Your task to perform on an android device: Go to Yahoo.com Image 0: 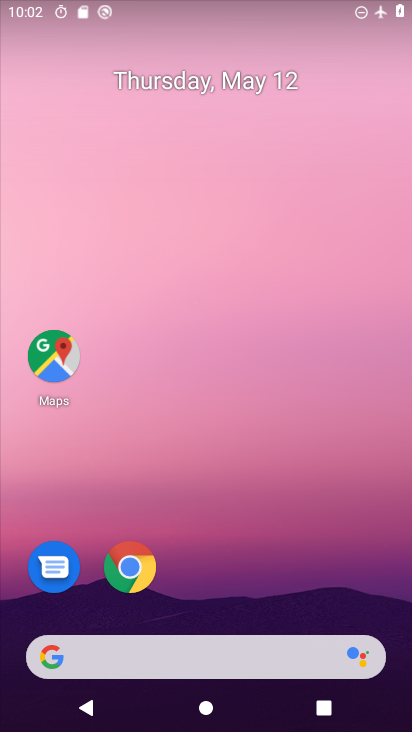
Step 0: drag from (237, 575) to (242, 204)
Your task to perform on an android device: Go to Yahoo.com Image 1: 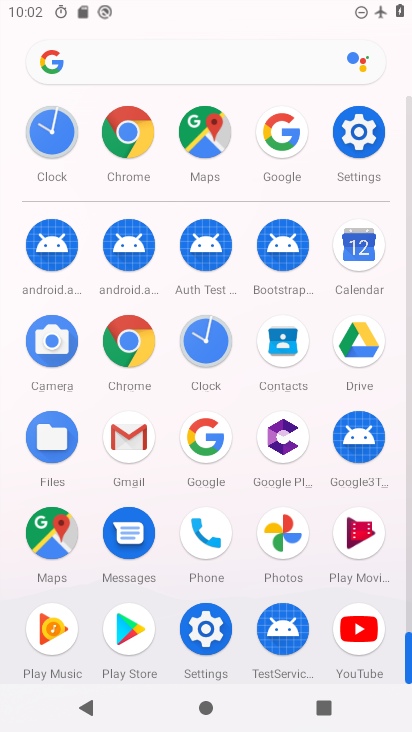
Step 1: click (138, 141)
Your task to perform on an android device: Go to Yahoo.com Image 2: 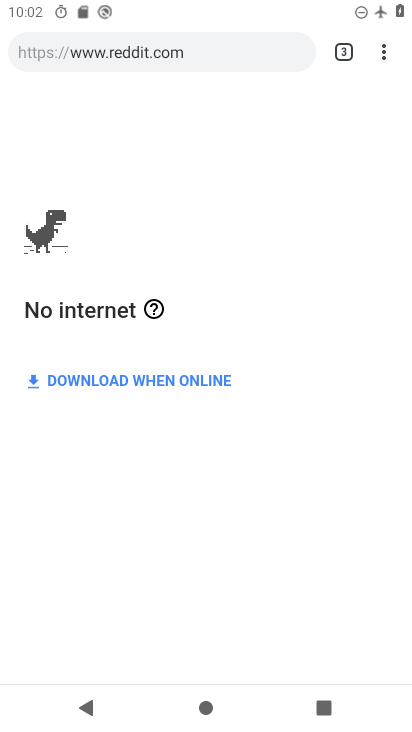
Step 2: click (267, 52)
Your task to perform on an android device: Go to Yahoo.com Image 3: 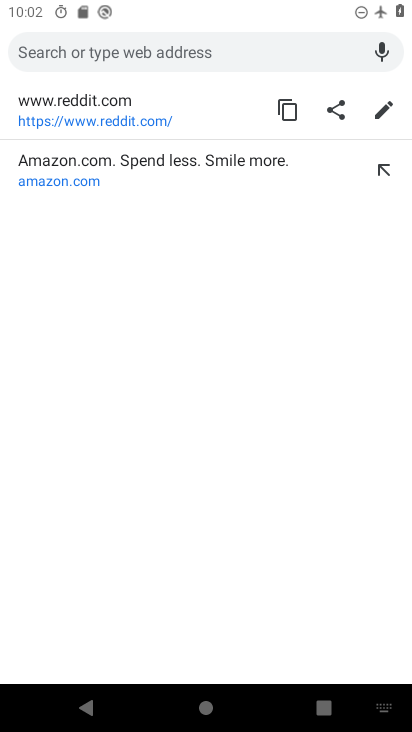
Step 3: type "yahoo.com"
Your task to perform on an android device: Go to Yahoo.com Image 4: 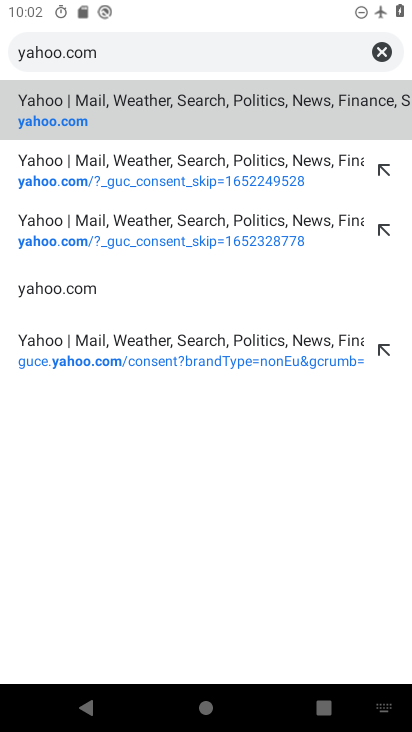
Step 4: click (173, 126)
Your task to perform on an android device: Go to Yahoo.com Image 5: 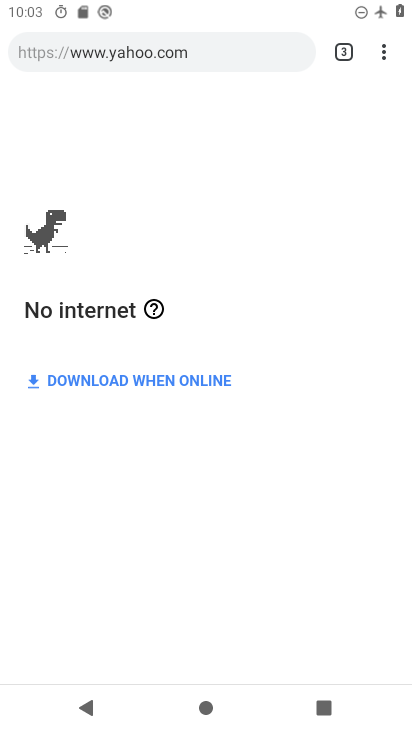
Step 5: task complete